Your task to perform on an android device: check google app version Image 0: 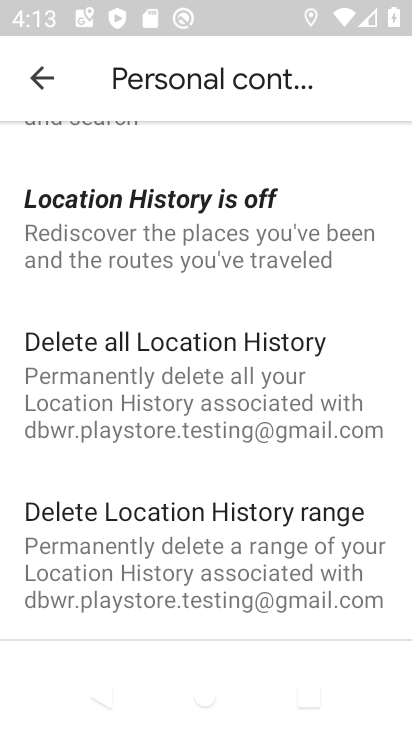
Step 0: press home button
Your task to perform on an android device: check google app version Image 1: 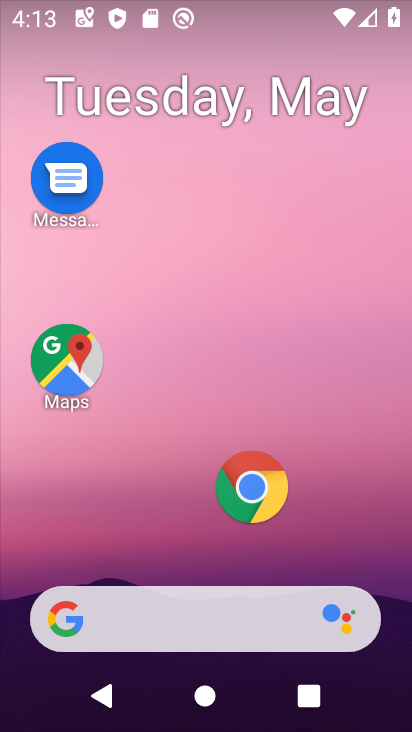
Step 1: click (69, 619)
Your task to perform on an android device: check google app version Image 2: 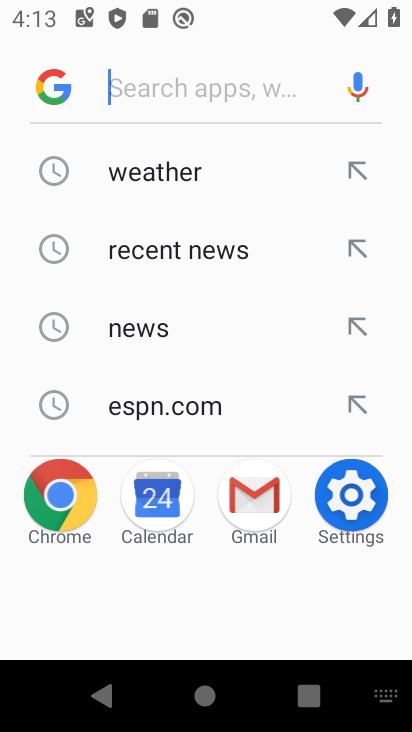
Step 2: click (56, 89)
Your task to perform on an android device: check google app version Image 3: 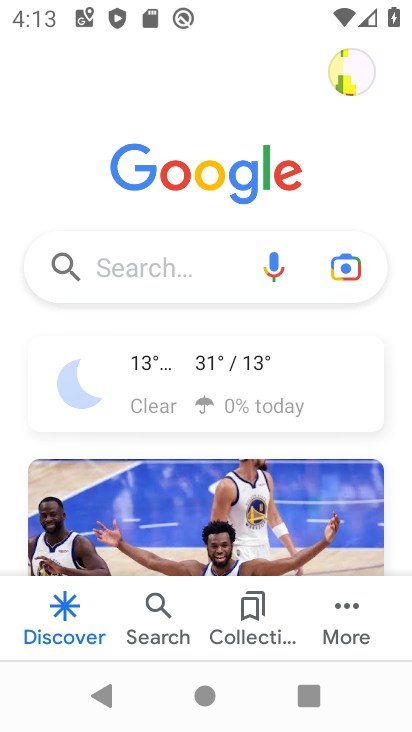
Step 3: click (339, 635)
Your task to perform on an android device: check google app version Image 4: 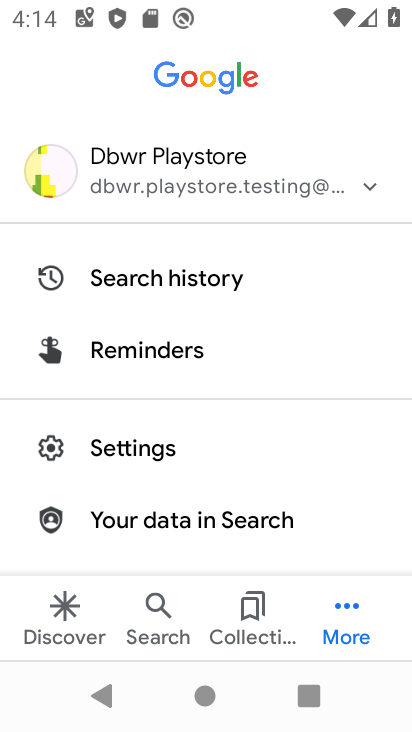
Step 4: click (168, 460)
Your task to perform on an android device: check google app version Image 5: 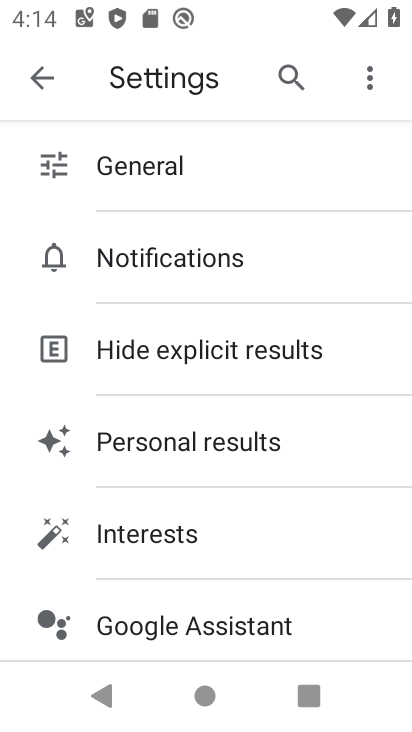
Step 5: drag from (208, 573) to (372, 46)
Your task to perform on an android device: check google app version Image 6: 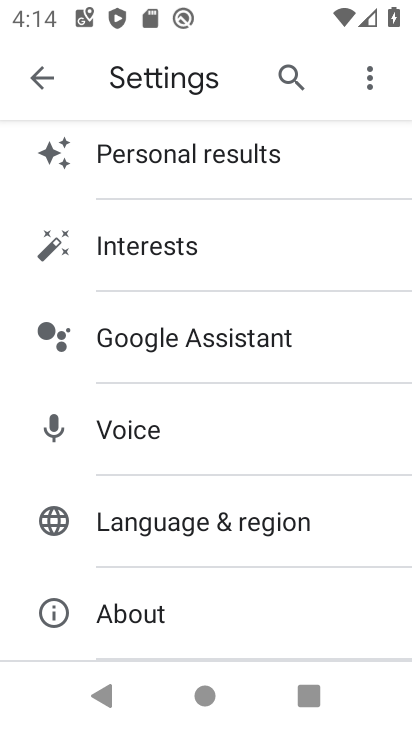
Step 6: click (154, 621)
Your task to perform on an android device: check google app version Image 7: 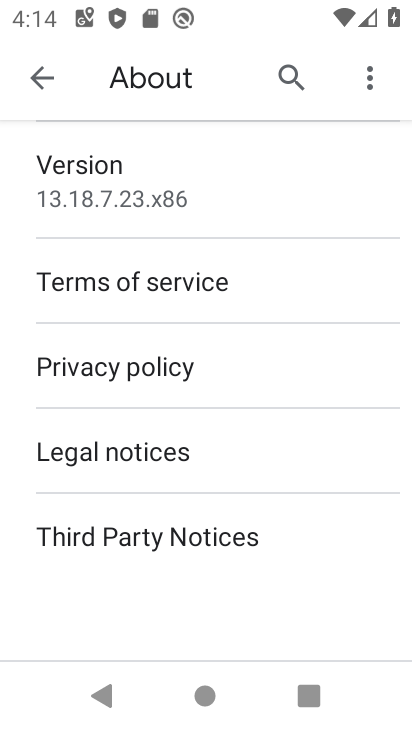
Step 7: task complete